Your task to perform on an android device: Do I have any events tomorrow? Image 0: 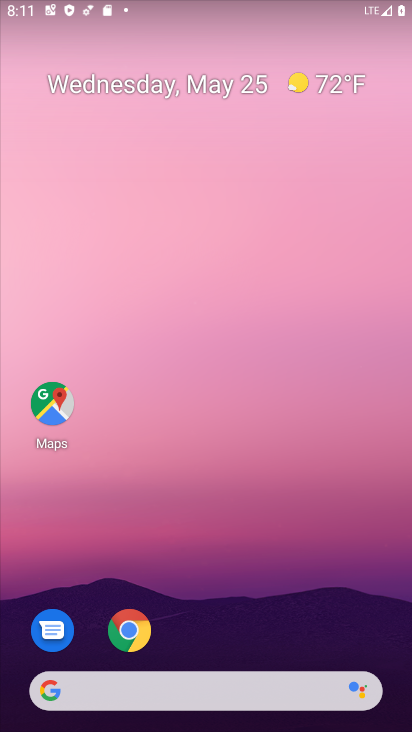
Step 0: drag from (231, 645) to (240, 321)
Your task to perform on an android device: Do I have any events tomorrow? Image 1: 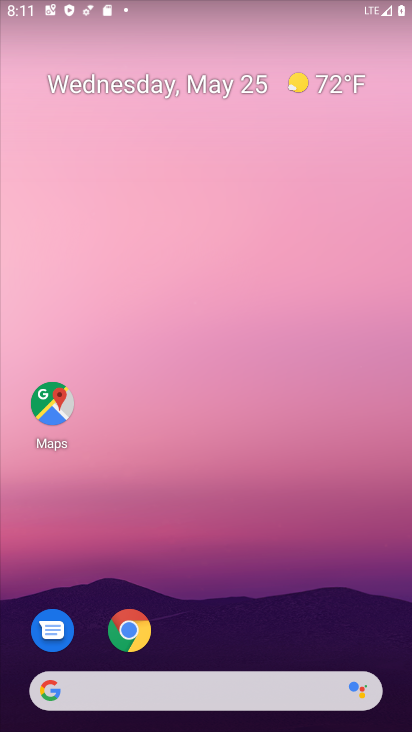
Step 1: drag from (228, 652) to (228, 144)
Your task to perform on an android device: Do I have any events tomorrow? Image 2: 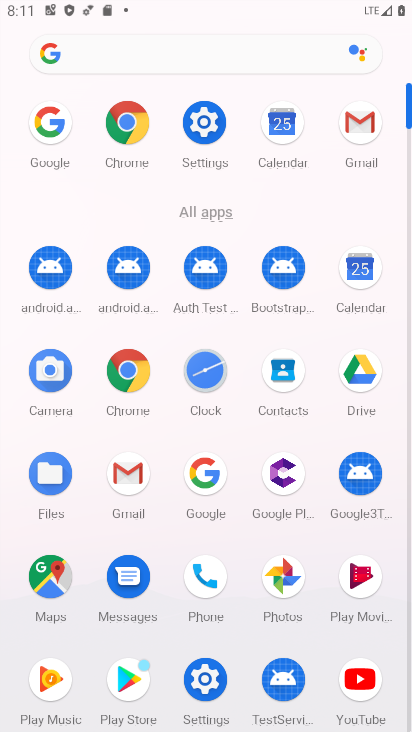
Step 2: click (371, 263)
Your task to perform on an android device: Do I have any events tomorrow? Image 3: 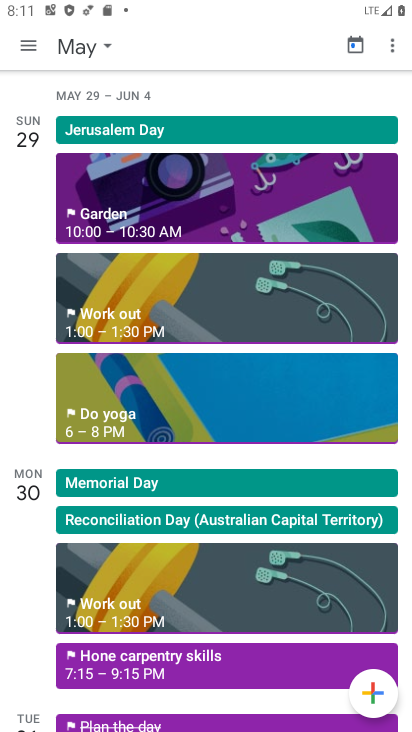
Step 3: click (111, 45)
Your task to perform on an android device: Do I have any events tomorrow? Image 4: 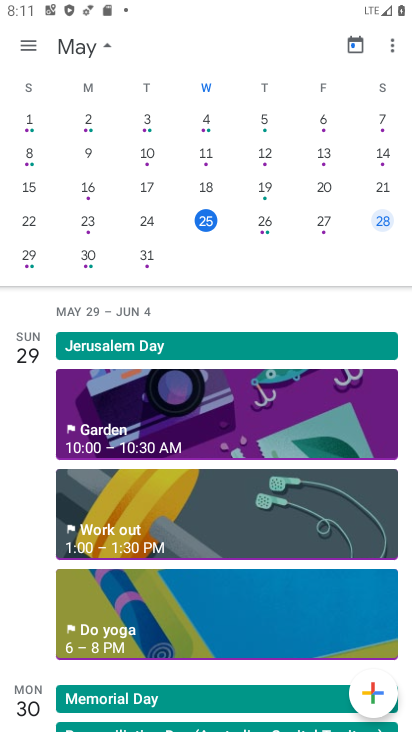
Step 4: click (271, 223)
Your task to perform on an android device: Do I have any events tomorrow? Image 5: 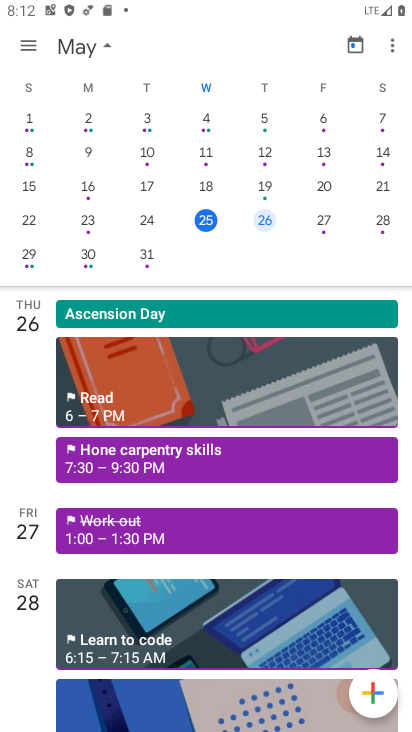
Step 5: task complete